Your task to perform on an android device: move a message to another label in the gmail app Image 0: 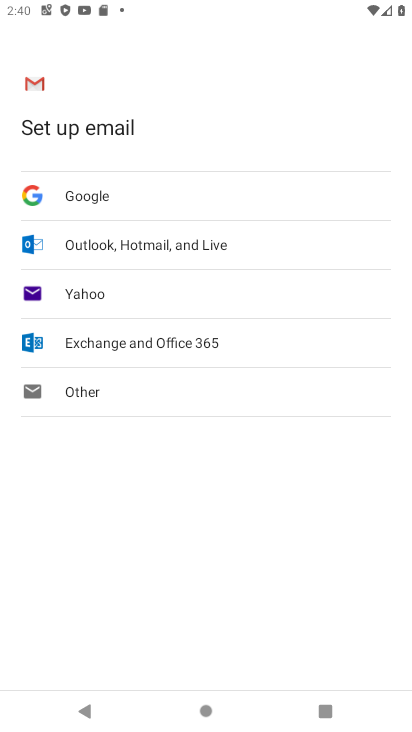
Step 0: press home button
Your task to perform on an android device: move a message to another label in the gmail app Image 1: 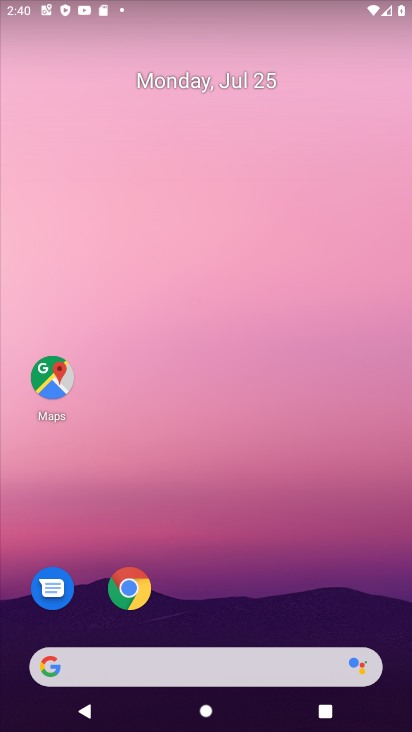
Step 1: drag from (233, 600) to (192, 34)
Your task to perform on an android device: move a message to another label in the gmail app Image 2: 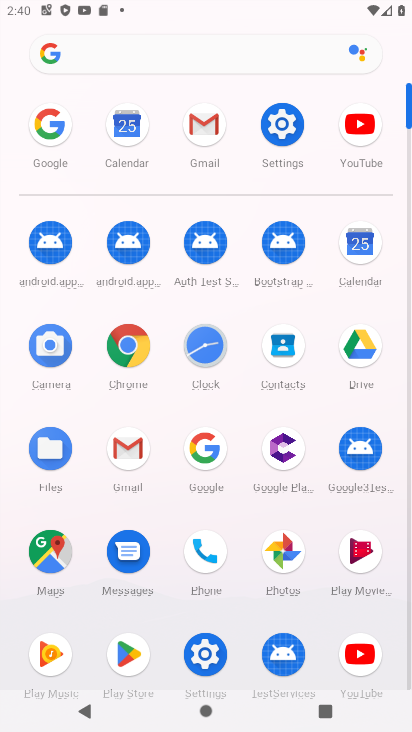
Step 2: click (215, 134)
Your task to perform on an android device: move a message to another label in the gmail app Image 3: 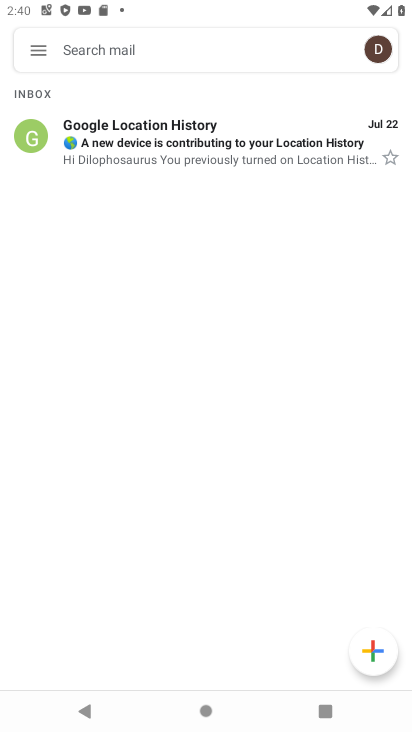
Step 3: click (169, 161)
Your task to perform on an android device: move a message to another label in the gmail app Image 4: 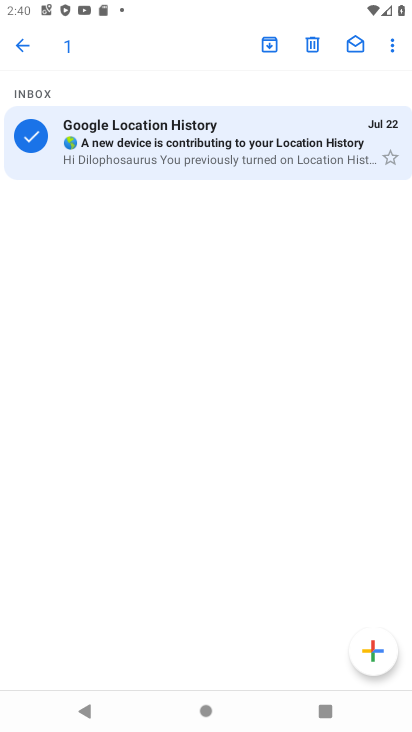
Step 4: click (397, 45)
Your task to perform on an android device: move a message to another label in the gmail app Image 5: 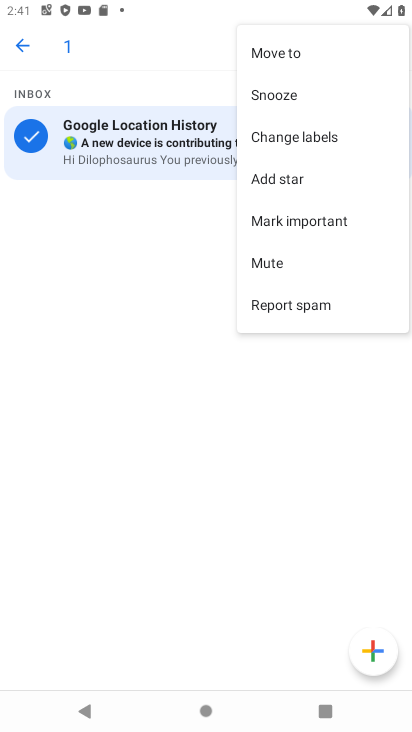
Step 5: click (344, 50)
Your task to perform on an android device: move a message to another label in the gmail app Image 6: 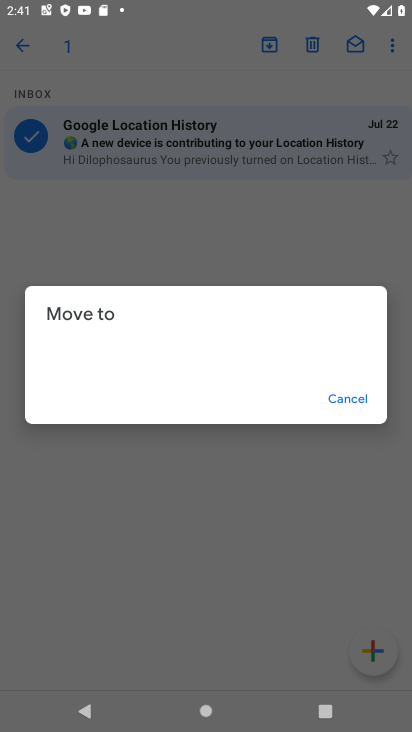
Step 6: click (143, 352)
Your task to perform on an android device: move a message to another label in the gmail app Image 7: 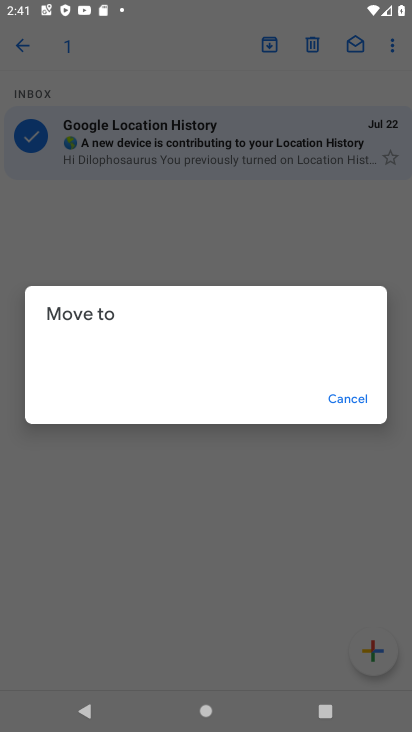
Step 7: click (331, 400)
Your task to perform on an android device: move a message to another label in the gmail app Image 8: 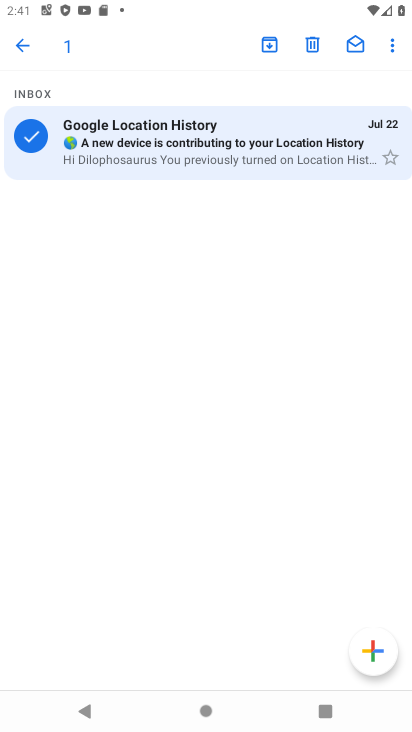
Step 8: task complete